Your task to perform on an android device: toggle javascript in the chrome app Image 0: 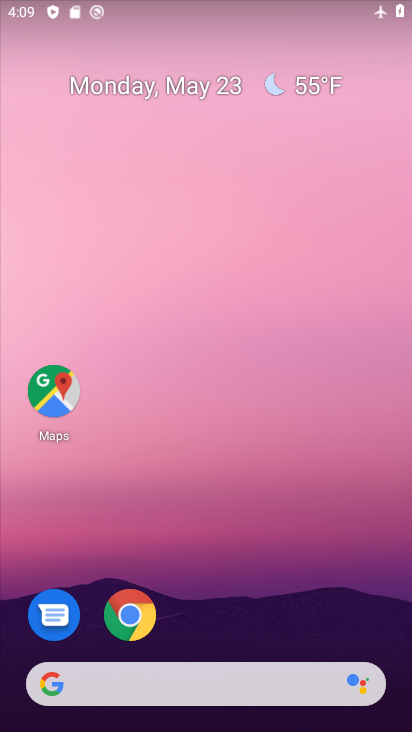
Step 0: drag from (354, 639) to (377, 216)
Your task to perform on an android device: toggle javascript in the chrome app Image 1: 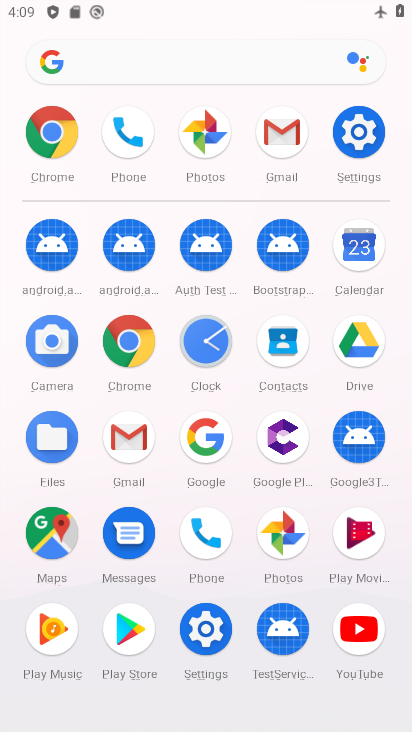
Step 1: click (126, 350)
Your task to perform on an android device: toggle javascript in the chrome app Image 2: 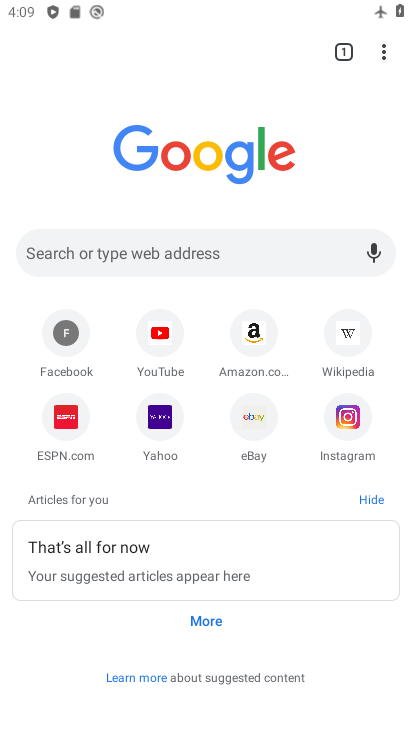
Step 2: click (385, 60)
Your task to perform on an android device: toggle javascript in the chrome app Image 3: 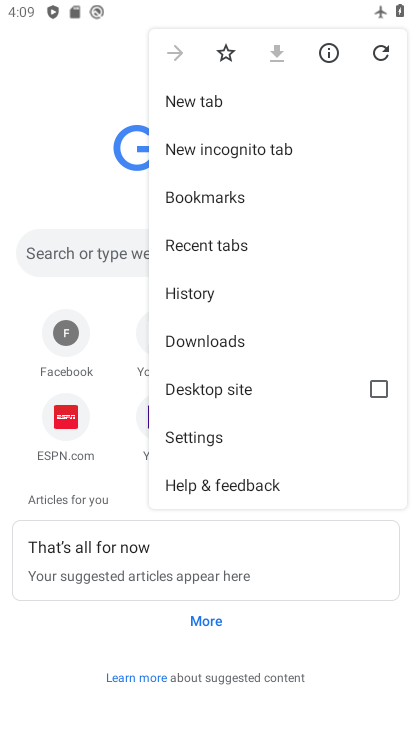
Step 3: drag from (308, 454) to (308, 354)
Your task to perform on an android device: toggle javascript in the chrome app Image 4: 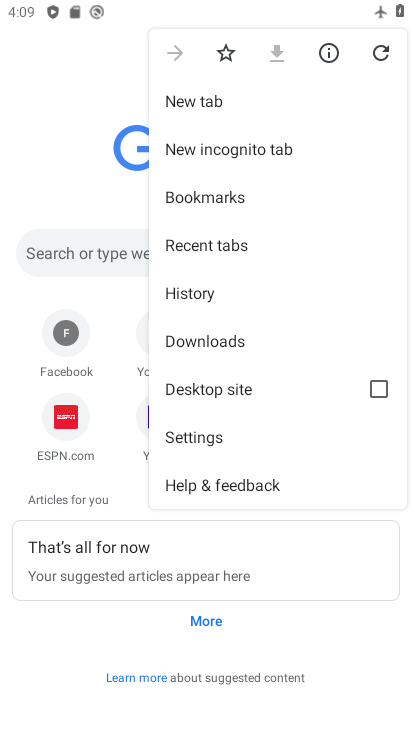
Step 4: click (234, 428)
Your task to perform on an android device: toggle javascript in the chrome app Image 5: 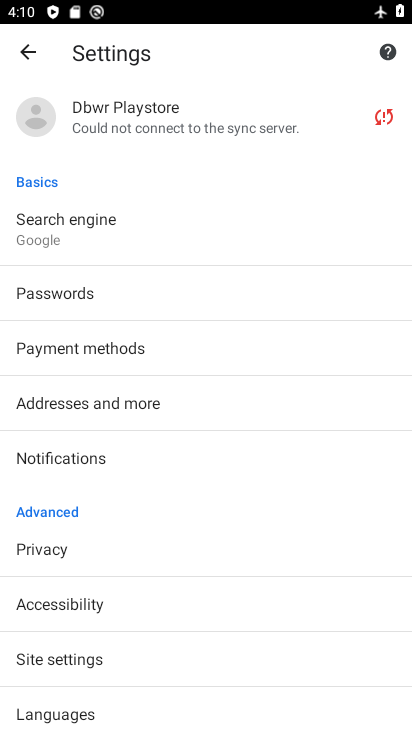
Step 5: drag from (260, 531) to (264, 432)
Your task to perform on an android device: toggle javascript in the chrome app Image 6: 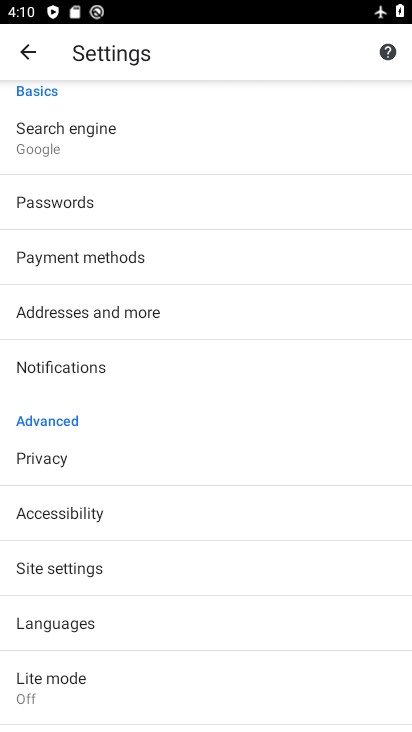
Step 6: drag from (278, 584) to (302, 458)
Your task to perform on an android device: toggle javascript in the chrome app Image 7: 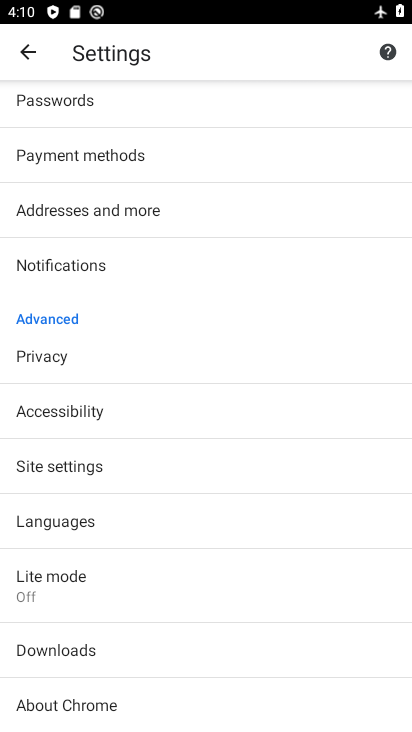
Step 7: drag from (295, 594) to (315, 485)
Your task to perform on an android device: toggle javascript in the chrome app Image 8: 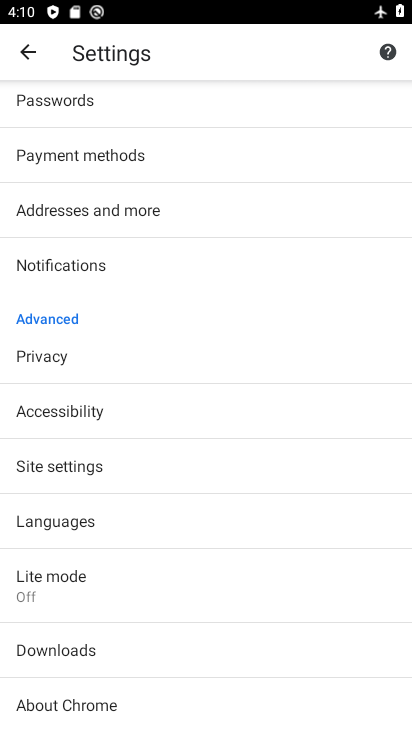
Step 8: drag from (298, 626) to (329, 465)
Your task to perform on an android device: toggle javascript in the chrome app Image 9: 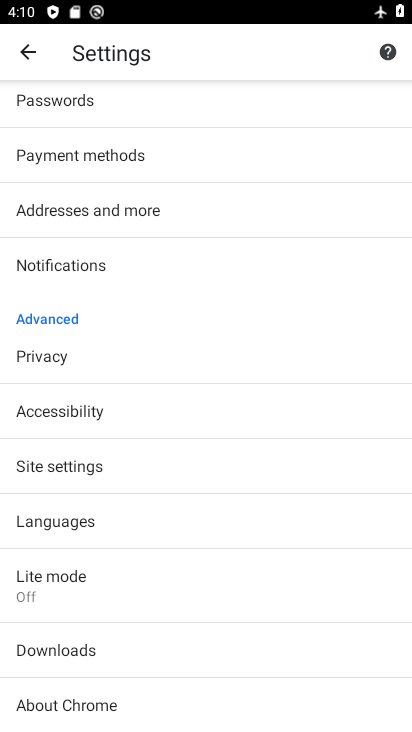
Step 9: drag from (346, 342) to (332, 461)
Your task to perform on an android device: toggle javascript in the chrome app Image 10: 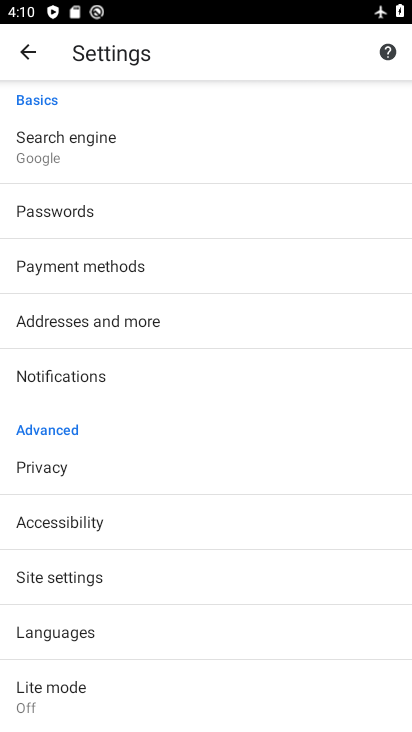
Step 10: drag from (332, 276) to (307, 442)
Your task to perform on an android device: toggle javascript in the chrome app Image 11: 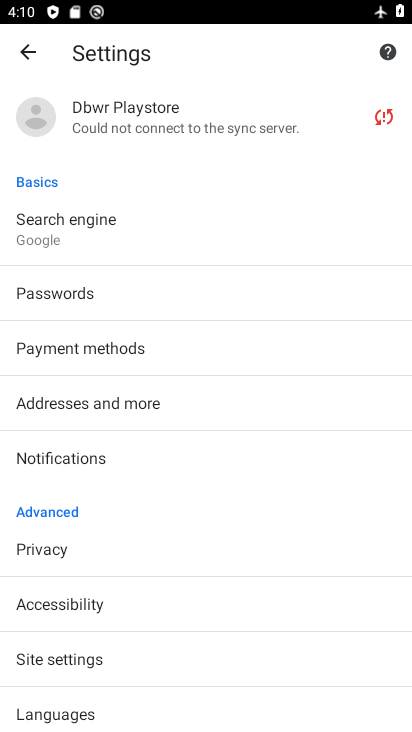
Step 11: drag from (324, 278) to (303, 486)
Your task to perform on an android device: toggle javascript in the chrome app Image 12: 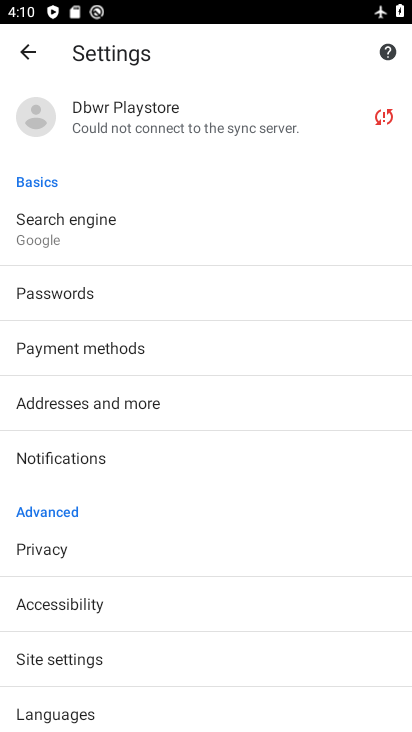
Step 12: drag from (305, 553) to (316, 407)
Your task to perform on an android device: toggle javascript in the chrome app Image 13: 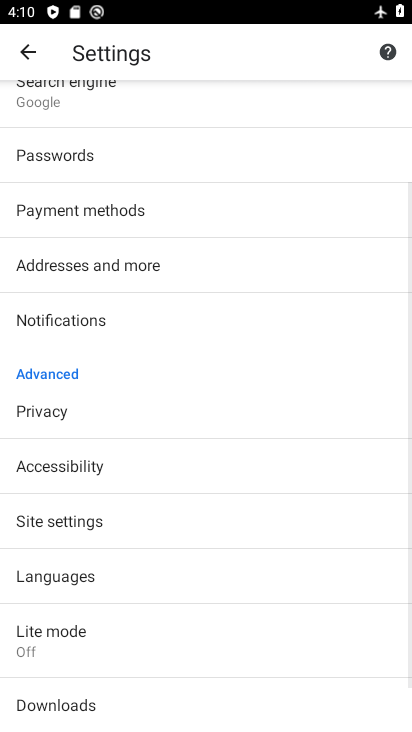
Step 13: drag from (281, 581) to (307, 453)
Your task to perform on an android device: toggle javascript in the chrome app Image 14: 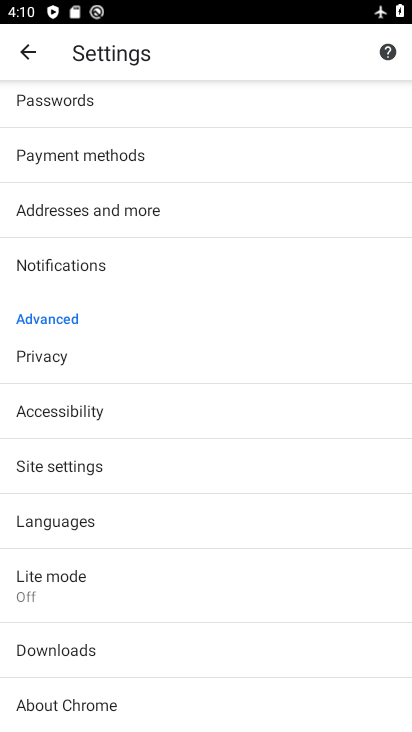
Step 14: click (130, 472)
Your task to perform on an android device: toggle javascript in the chrome app Image 15: 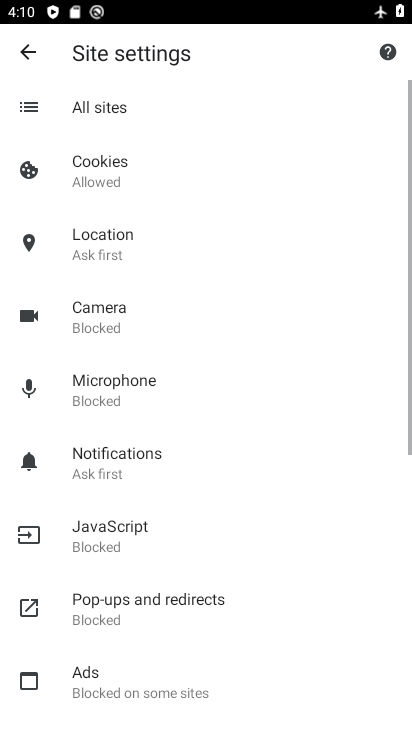
Step 15: drag from (284, 602) to (298, 481)
Your task to perform on an android device: toggle javascript in the chrome app Image 16: 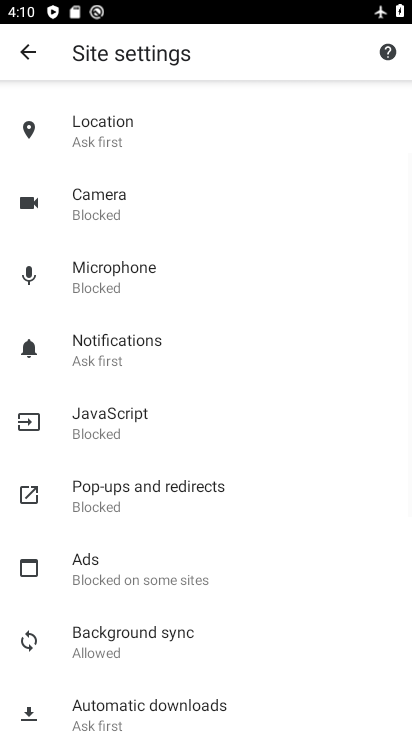
Step 16: drag from (309, 636) to (317, 504)
Your task to perform on an android device: toggle javascript in the chrome app Image 17: 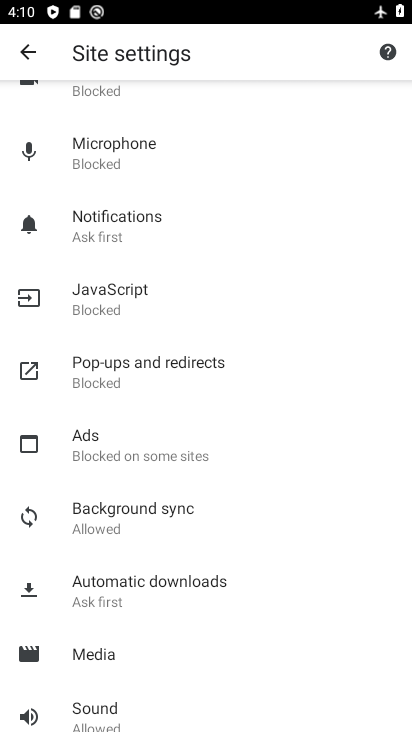
Step 17: drag from (312, 657) to (318, 557)
Your task to perform on an android device: toggle javascript in the chrome app Image 18: 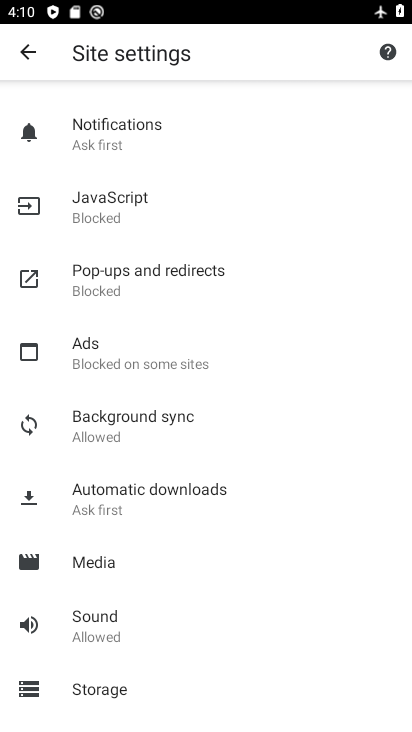
Step 18: drag from (314, 681) to (315, 480)
Your task to perform on an android device: toggle javascript in the chrome app Image 19: 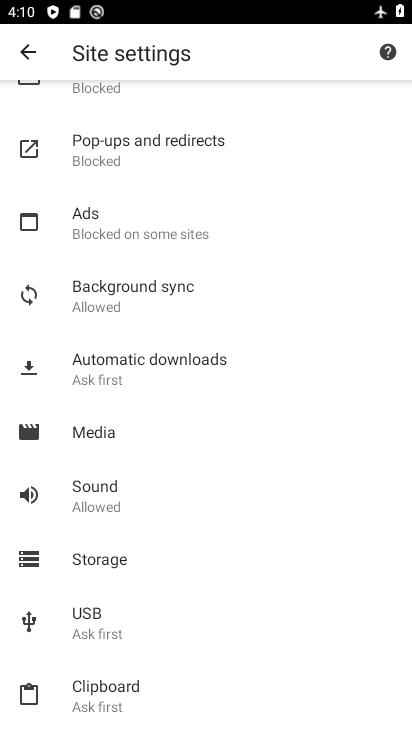
Step 19: drag from (322, 340) to (304, 453)
Your task to perform on an android device: toggle javascript in the chrome app Image 20: 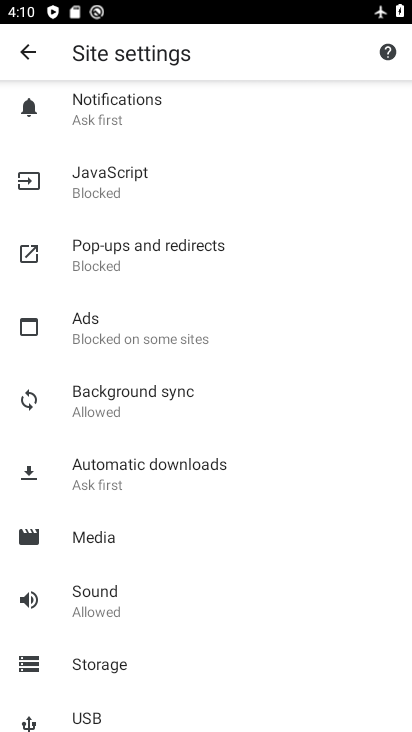
Step 20: drag from (291, 335) to (276, 449)
Your task to perform on an android device: toggle javascript in the chrome app Image 21: 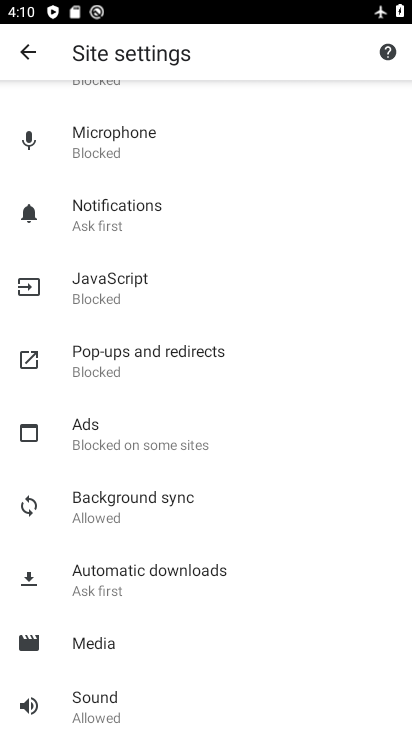
Step 21: drag from (304, 309) to (288, 429)
Your task to perform on an android device: toggle javascript in the chrome app Image 22: 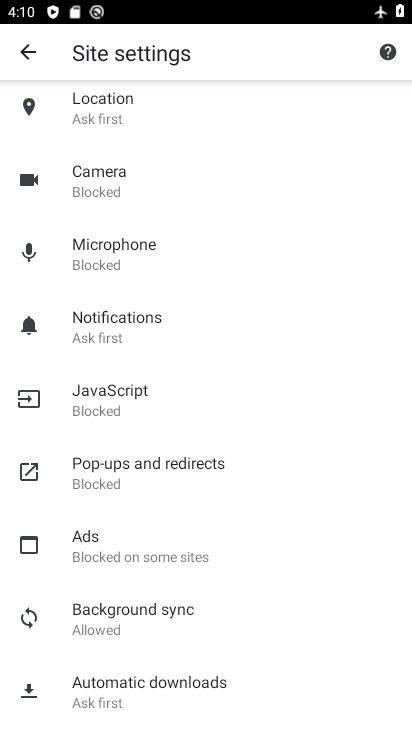
Step 22: drag from (300, 308) to (305, 455)
Your task to perform on an android device: toggle javascript in the chrome app Image 23: 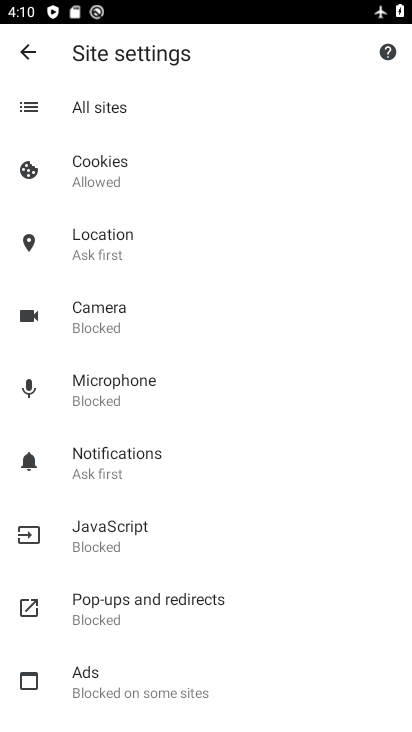
Step 23: drag from (302, 301) to (284, 503)
Your task to perform on an android device: toggle javascript in the chrome app Image 24: 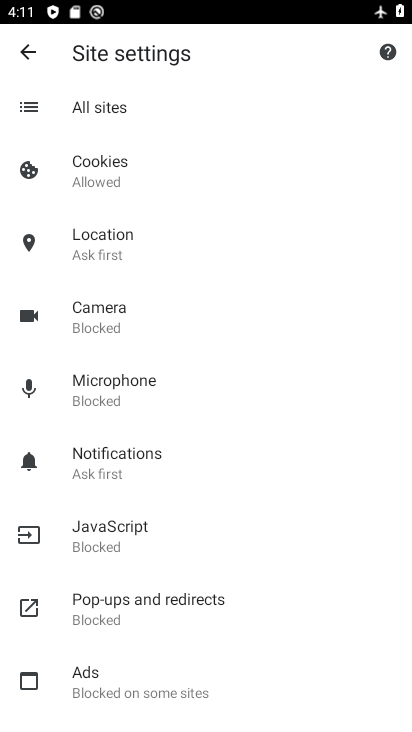
Step 24: drag from (310, 577) to (313, 454)
Your task to perform on an android device: toggle javascript in the chrome app Image 25: 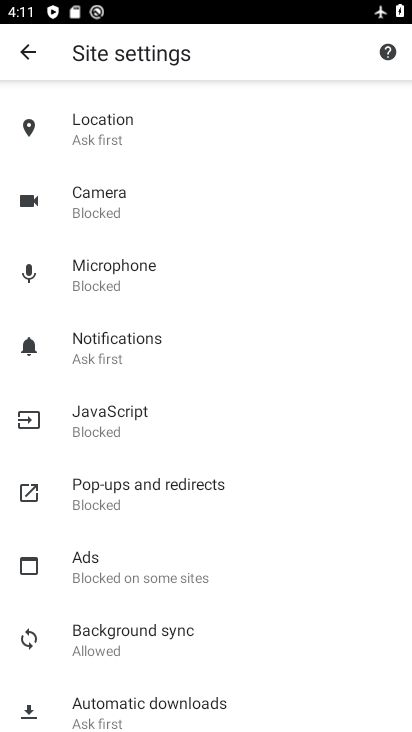
Step 25: click (129, 432)
Your task to perform on an android device: toggle javascript in the chrome app Image 26: 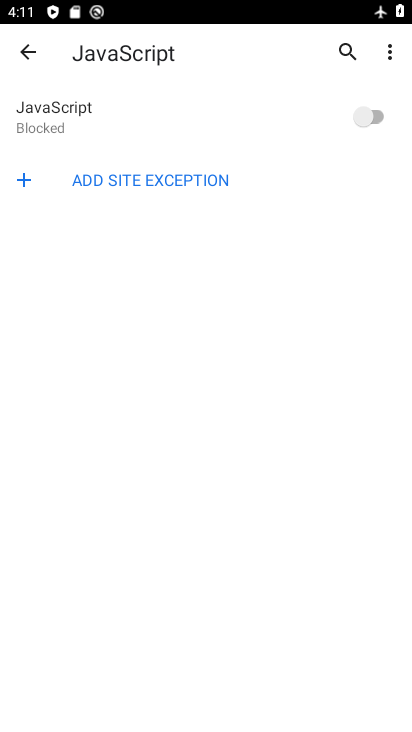
Step 26: click (367, 118)
Your task to perform on an android device: toggle javascript in the chrome app Image 27: 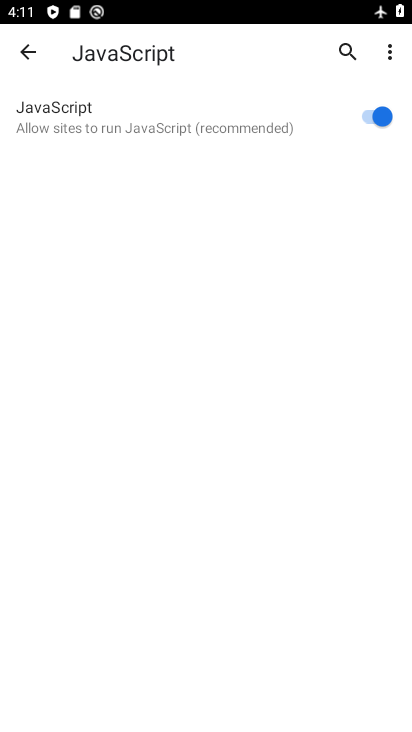
Step 27: task complete